Your task to perform on an android device: turn off javascript in the chrome app Image 0: 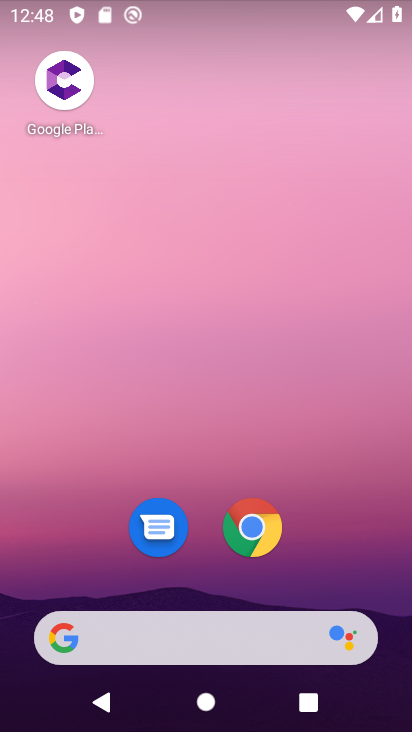
Step 0: press home button
Your task to perform on an android device: turn off javascript in the chrome app Image 1: 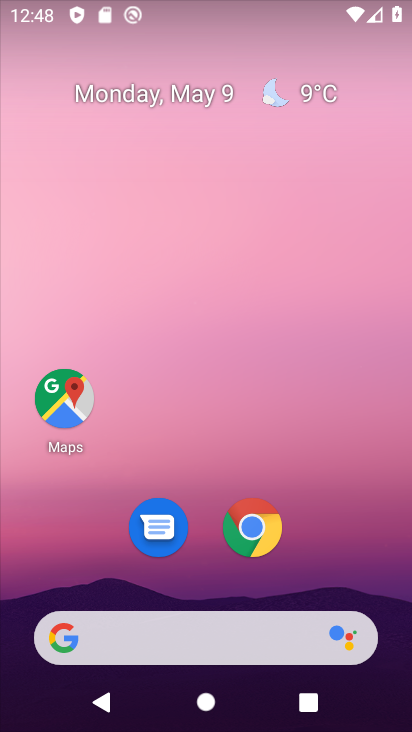
Step 1: click (278, 535)
Your task to perform on an android device: turn off javascript in the chrome app Image 2: 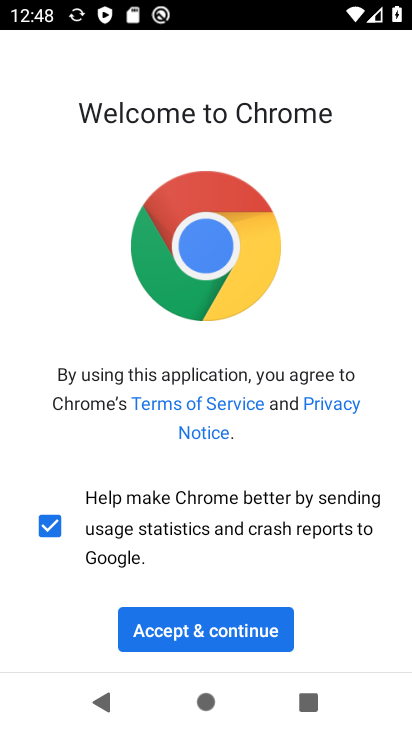
Step 2: click (224, 633)
Your task to perform on an android device: turn off javascript in the chrome app Image 3: 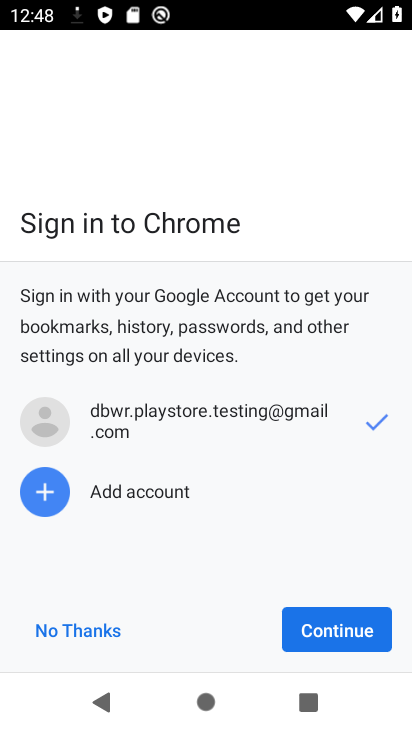
Step 3: click (332, 643)
Your task to perform on an android device: turn off javascript in the chrome app Image 4: 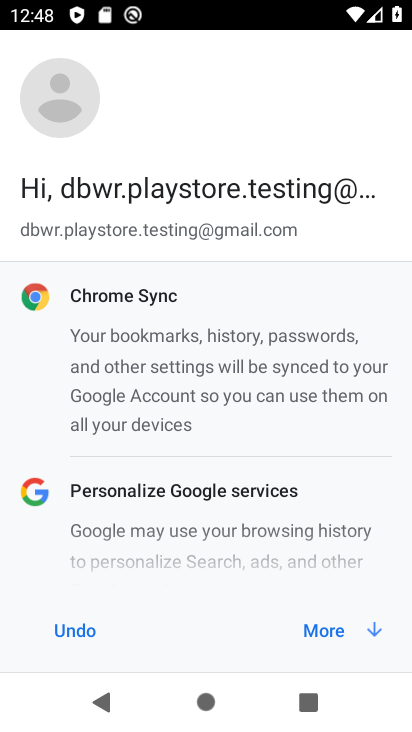
Step 4: click (332, 637)
Your task to perform on an android device: turn off javascript in the chrome app Image 5: 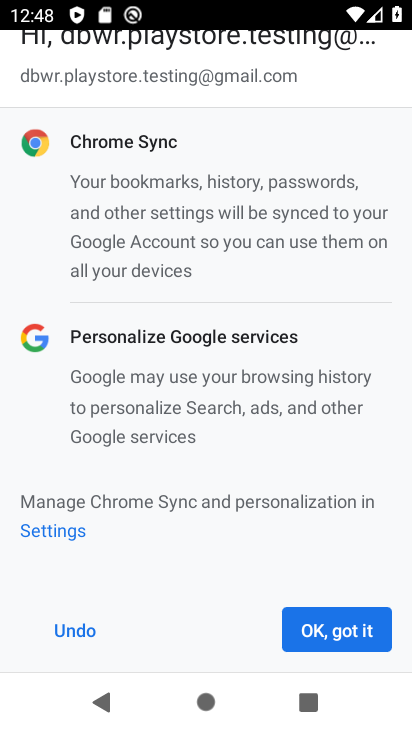
Step 5: click (332, 637)
Your task to perform on an android device: turn off javascript in the chrome app Image 6: 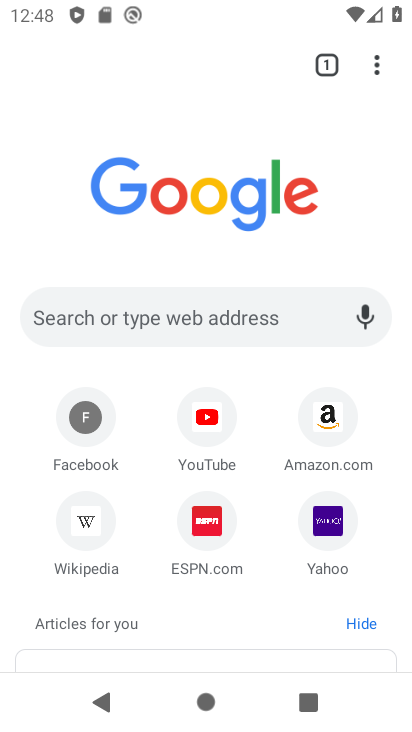
Step 6: click (187, 318)
Your task to perform on an android device: turn off javascript in the chrome app Image 7: 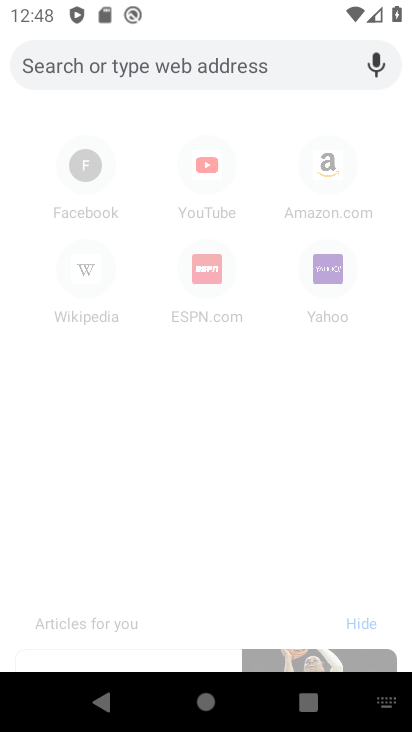
Step 7: press back button
Your task to perform on an android device: turn off javascript in the chrome app Image 8: 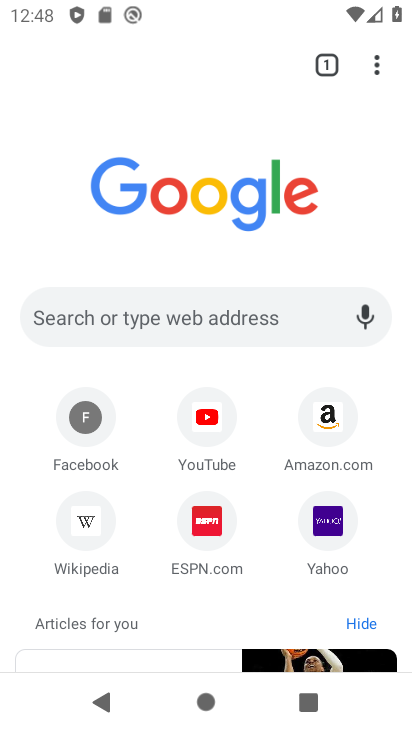
Step 8: drag from (370, 72) to (251, 561)
Your task to perform on an android device: turn off javascript in the chrome app Image 9: 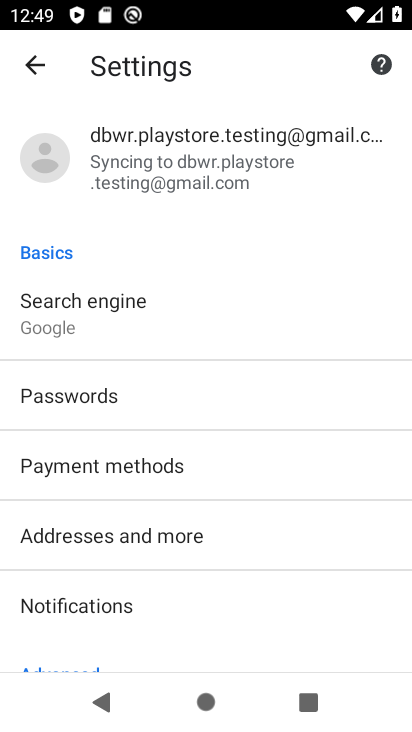
Step 9: drag from (191, 609) to (211, 283)
Your task to perform on an android device: turn off javascript in the chrome app Image 10: 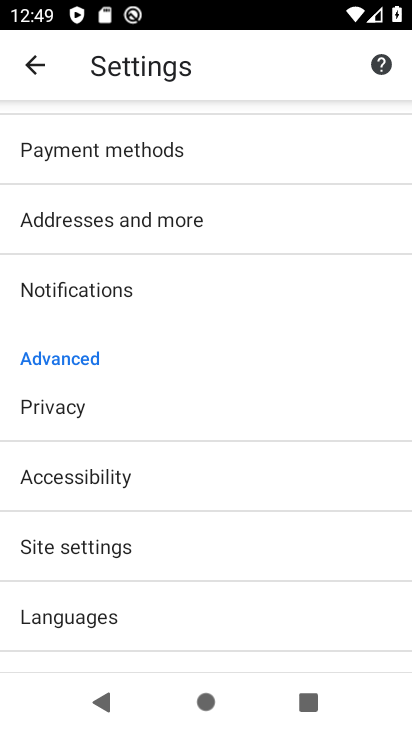
Step 10: click (149, 554)
Your task to perform on an android device: turn off javascript in the chrome app Image 11: 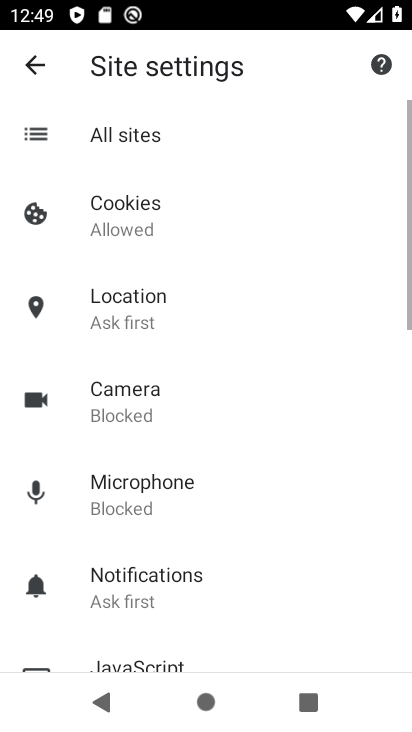
Step 11: drag from (172, 546) to (193, 210)
Your task to perform on an android device: turn off javascript in the chrome app Image 12: 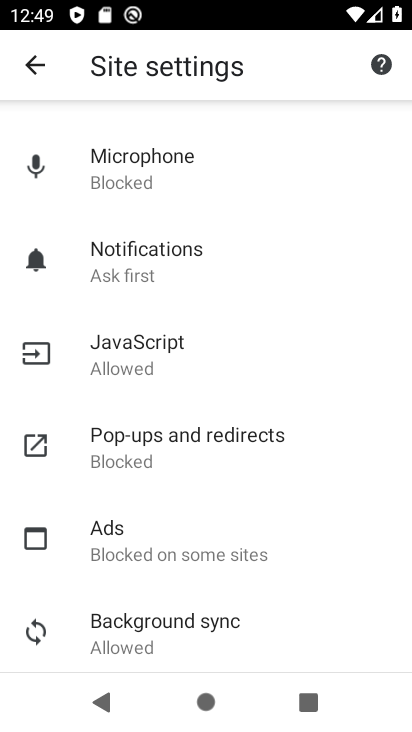
Step 12: click (171, 364)
Your task to perform on an android device: turn off javascript in the chrome app Image 13: 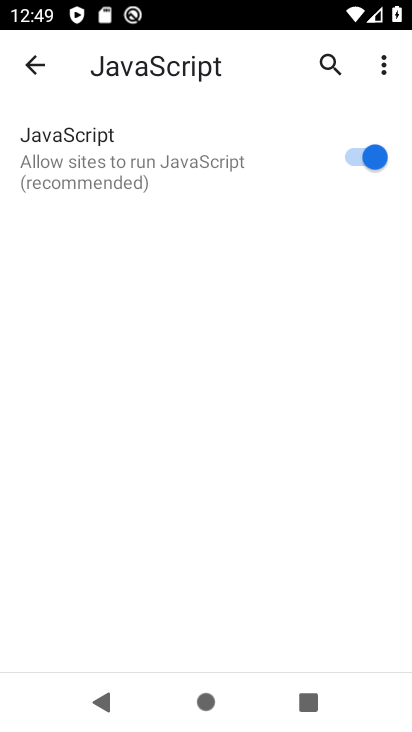
Step 13: click (376, 150)
Your task to perform on an android device: turn off javascript in the chrome app Image 14: 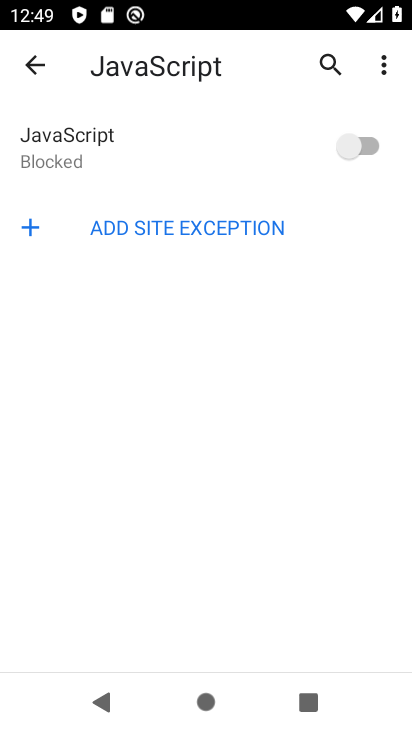
Step 14: task complete